Your task to perform on an android device: empty trash in google photos Image 0: 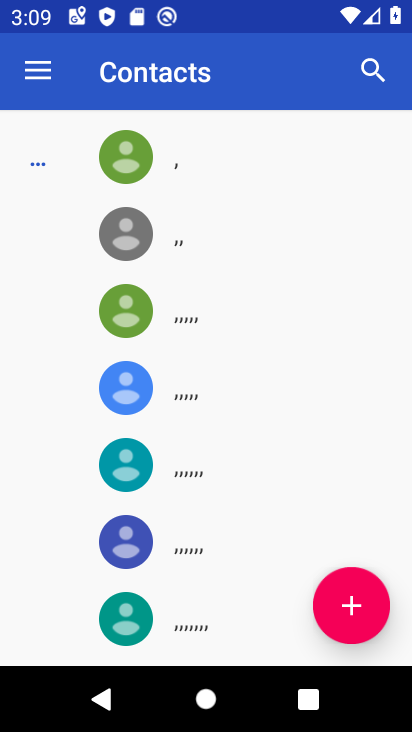
Step 0: press home button
Your task to perform on an android device: empty trash in google photos Image 1: 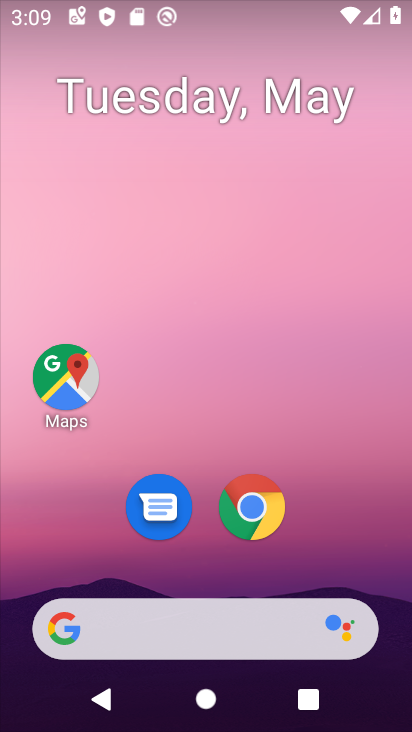
Step 1: drag from (214, 581) to (240, 49)
Your task to perform on an android device: empty trash in google photos Image 2: 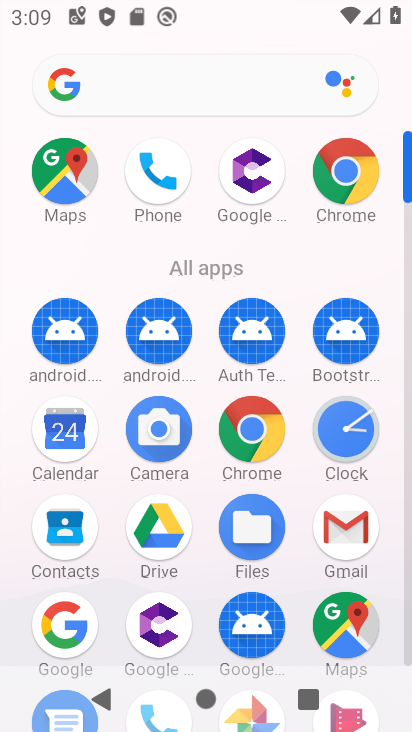
Step 2: drag from (206, 568) to (217, 270)
Your task to perform on an android device: empty trash in google photos Image 3: 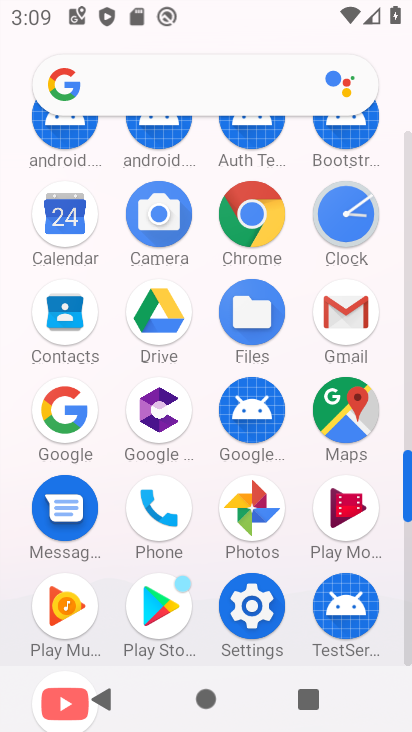
Step 3: click (250, 517)
Your task to perform on an android device: empty trash in google photos Image 4: 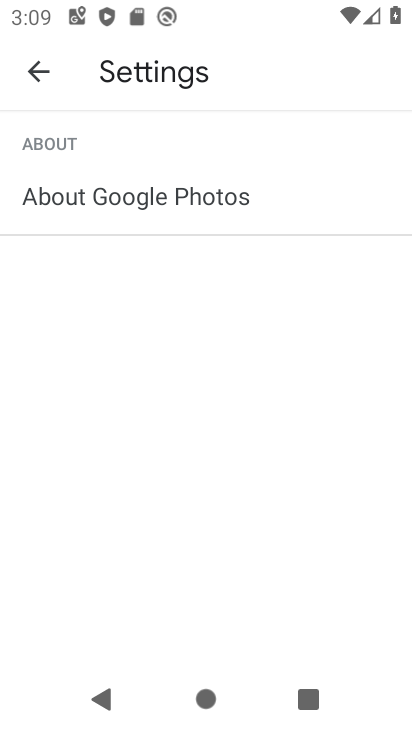
Step 4: click (37, 61)
Your task to perform on an android device: empty trash in google photos Image 5: 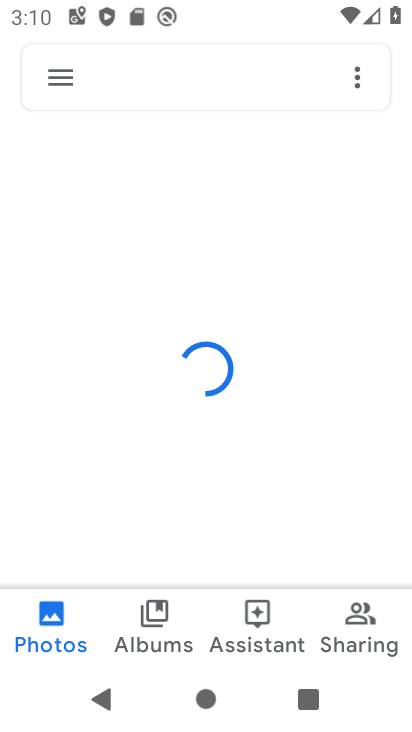
Step 5: click (65, 80)
Your task to perform on an android device: empty trash in google photos Image 6: 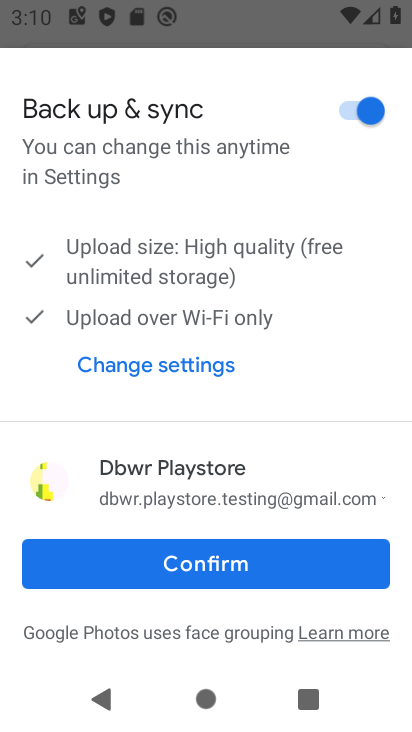
Step 6: click (255, 561)
Your task to perform on an android device: empty trash in google photos Image 7: 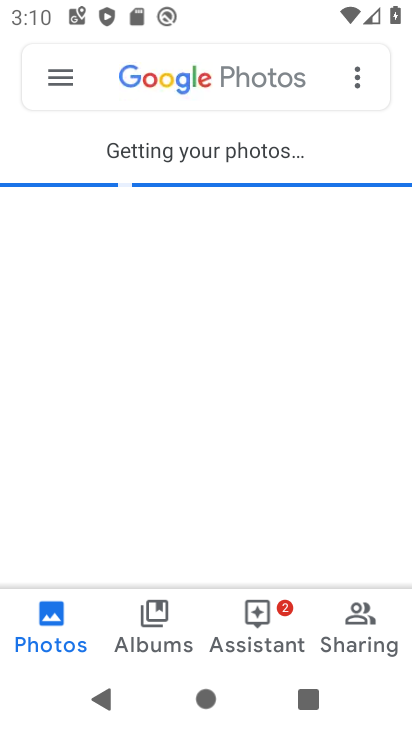
Step 7: click (66, 75)
Your task to perform on an android device: empty trash in google photos Image 8: 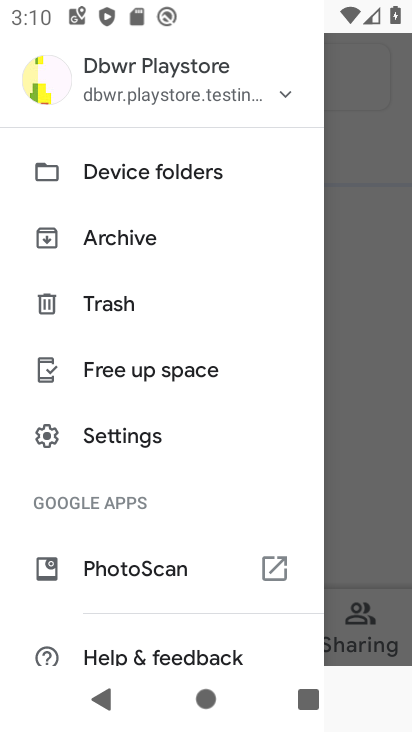
Step 8: click (98, 292)
Your task to perform on an android device: empty trash in google photos Image 9: 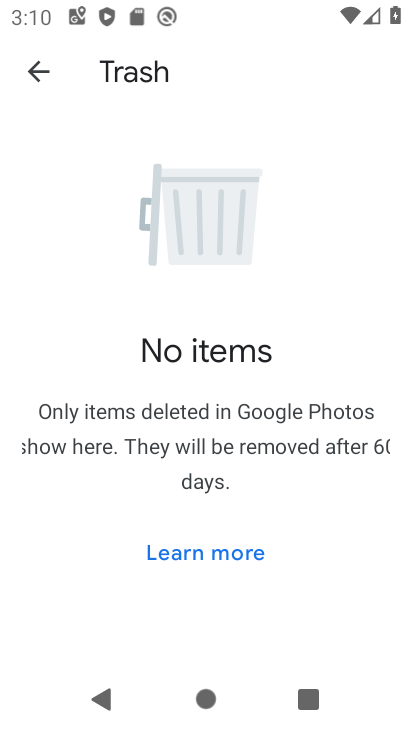
Step 9: task complete